Your task to perform on an android device: Open calendar and show me the fourth week of next month Image 0: 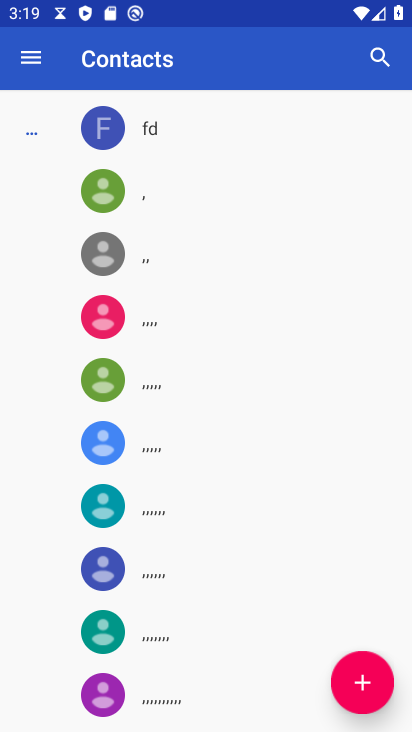
Step 0: press home button
Your task to perform on an android device: Open calendar and show me the fourth week of next month Image 1: 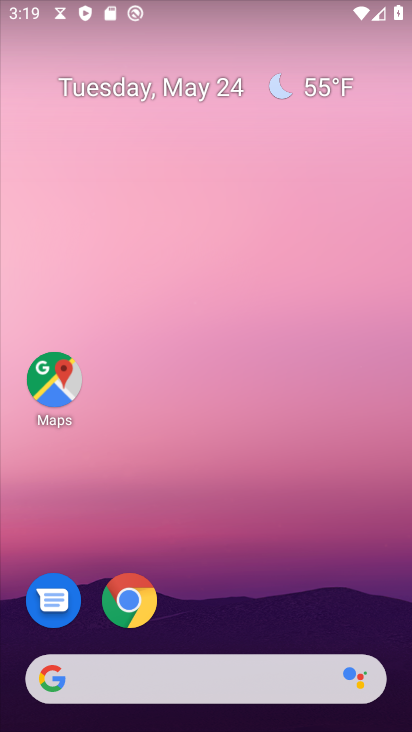
Step 1: drag from (218, 654) to (275, 76)
Your task to perform on an android device: Open calendar and show me the fourth week of next month Image 2: 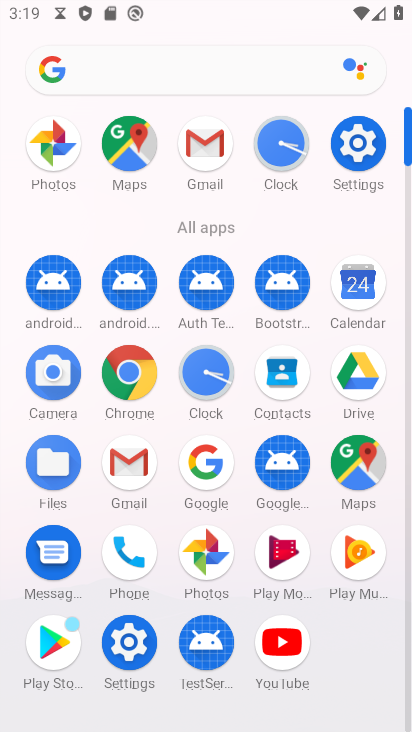
Step 2: click (361, 298)
Your task to perform on an android device: Open calendar and show me the fourth week of next month Image 3: 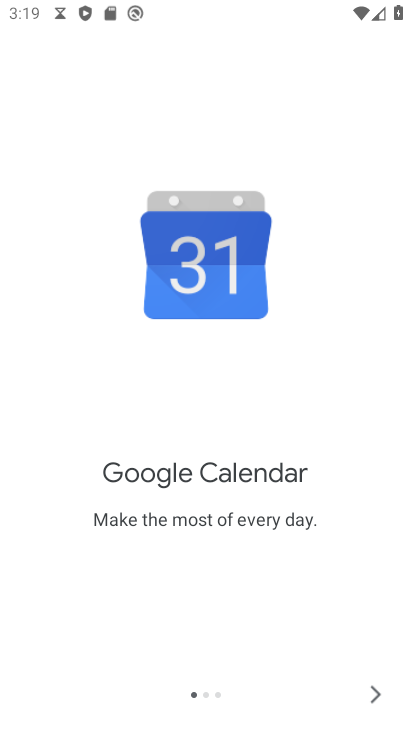
Step 3: click (373, 686)
Your task to perform on an android device: Open calendar and show me the fourth week of next month Image 4: 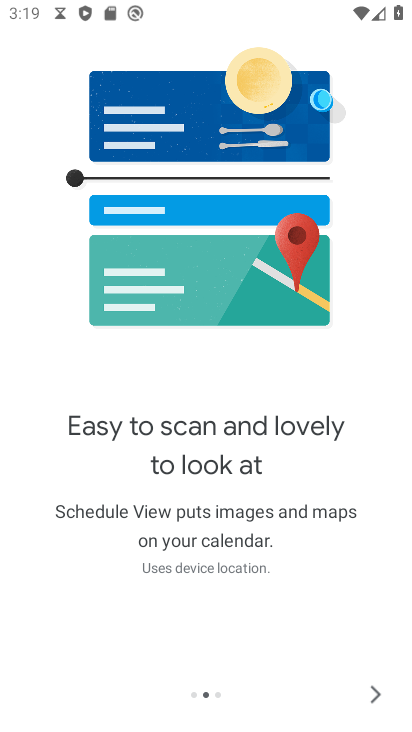
Step 4: click (371, 692)
Your task to perform on an android device: Open calendar and show me the fourth week of next month Image 5: 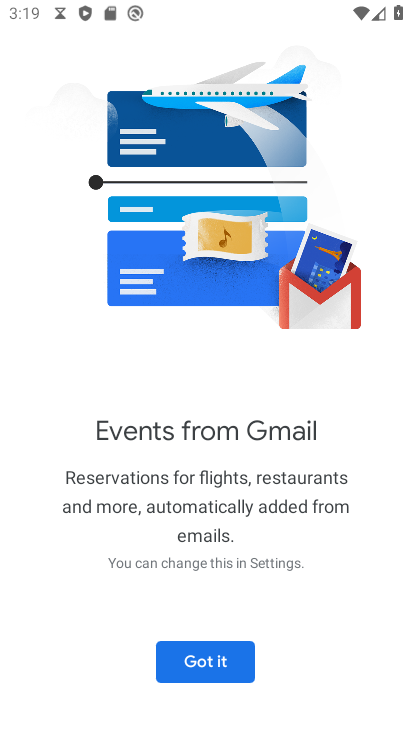
Step 5: click (170, 663)
Your task to perform on an android device: Open calendar and show me the fourth week of next month Image 6: 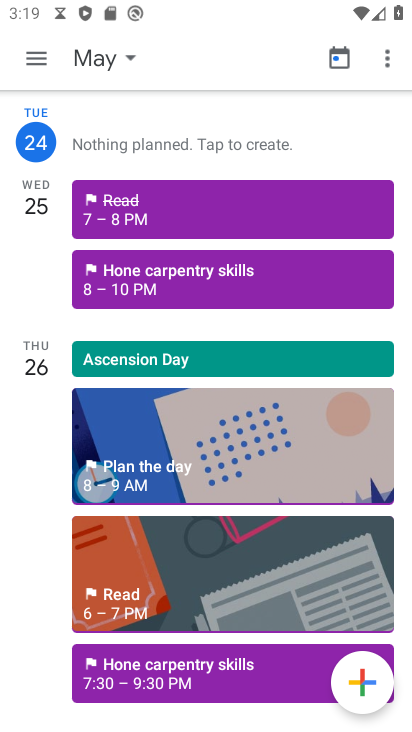
Step 6: click (48, 61)
Your task to perform on an android device: Open calendar and show me the fourth week of next month Image 7: 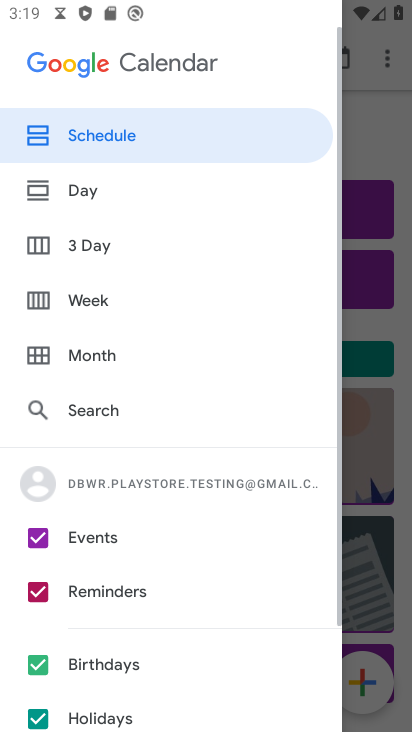
Step 7: click (95, 353)
Your task to perform on an android device: Open calendar and show me the fourth week of next month Image 8: 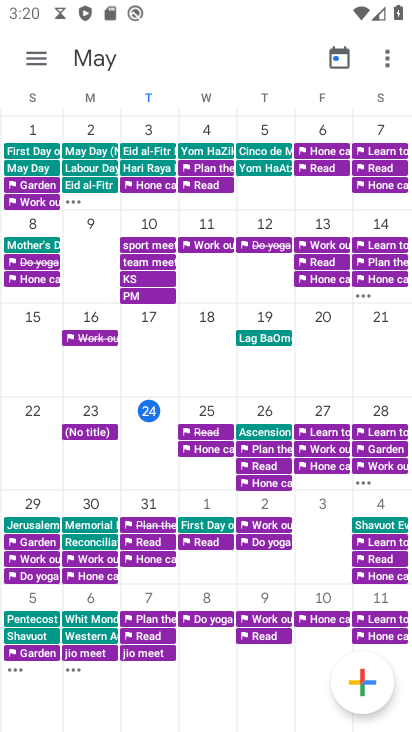
Step 8: task complete